Your task to perform on an android device: turn smart compose on in the gmail app Image 0: 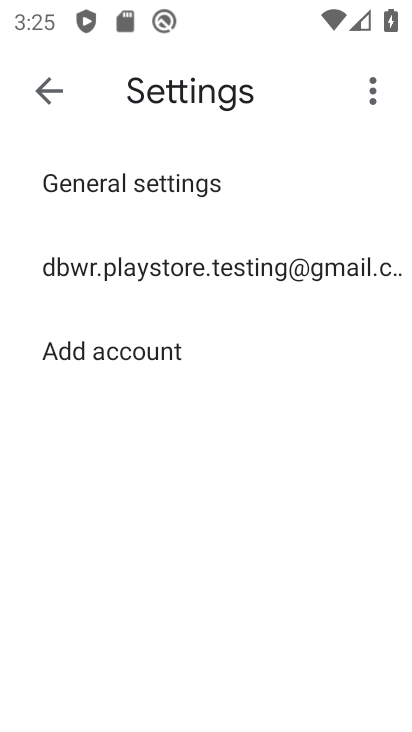
Step 0: press home button
Your task to perform on an android device: turn smart compose on in the gmail app Image 1: 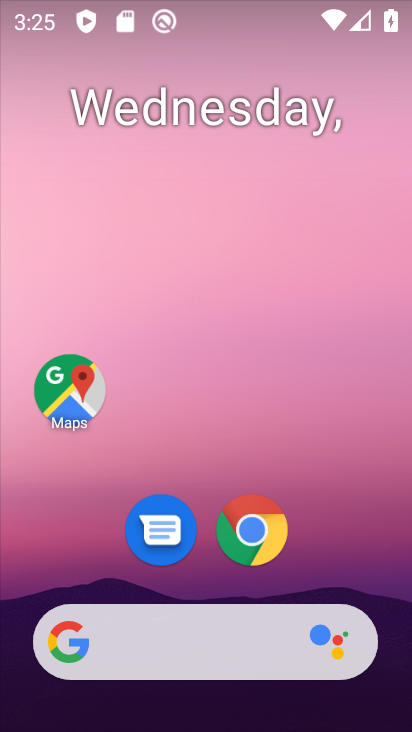
Step 1: drag from (313, 459) to (314, 131)
Your task to perform on an android device: turn smart compose on in the gmail app Image 2: 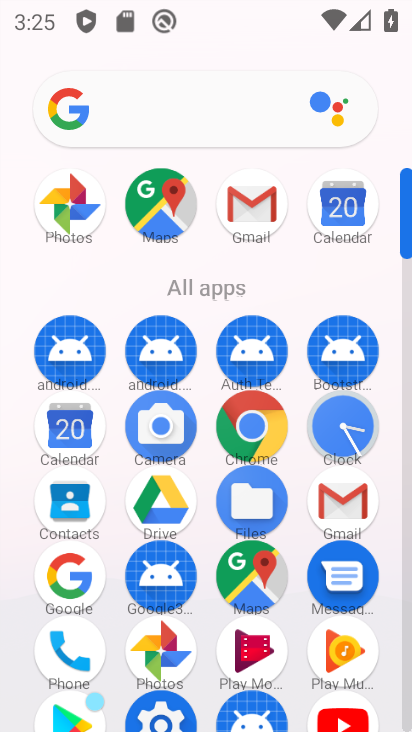
Step 2: click (249, 192)
Your task to perform on an android device: turn smart compose on in the gmail app Image 3: 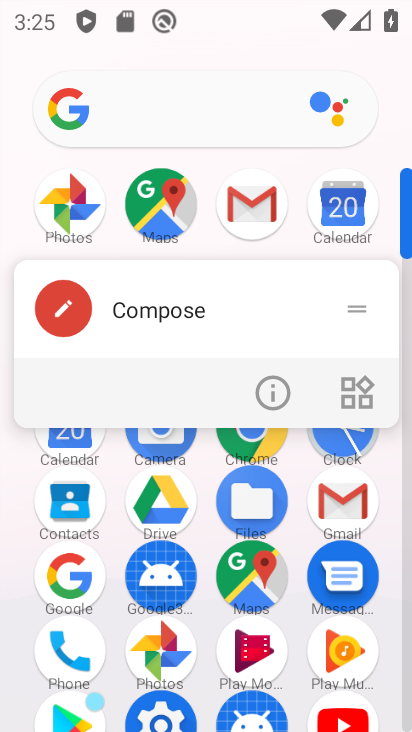
Step 3: click (352, 500)
Your task to perform on an android device: turn smart compose on in the gmail app Image 4: 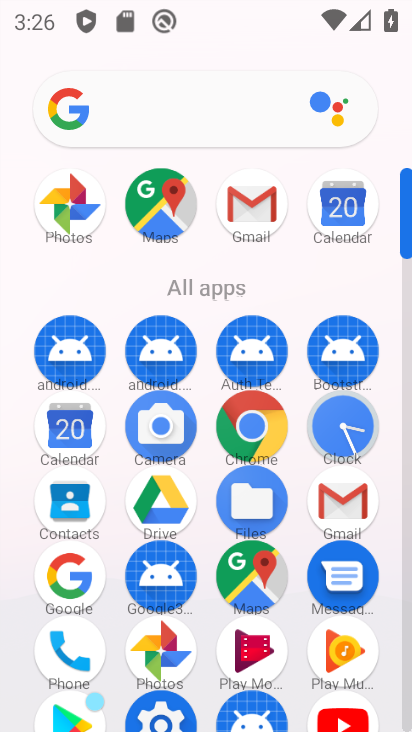
Step 4: click (339, 498)
Your task to perform on an android device: turn smart compose on in the gmail app Image 5: 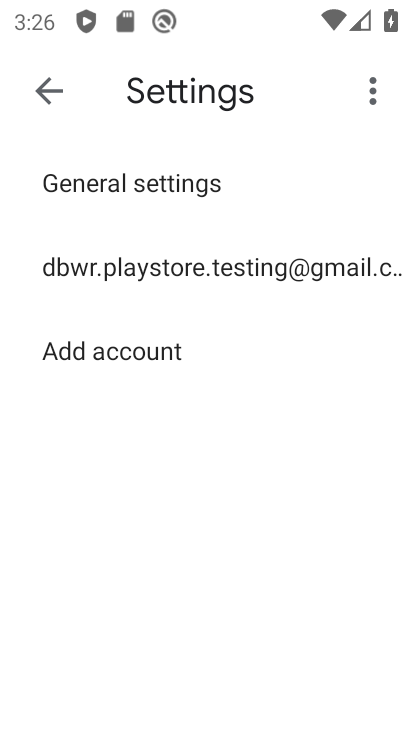
Step 5: click (224, 269)
Your task to perform on an android device: turn smart compose on in the gmail app Image 6: 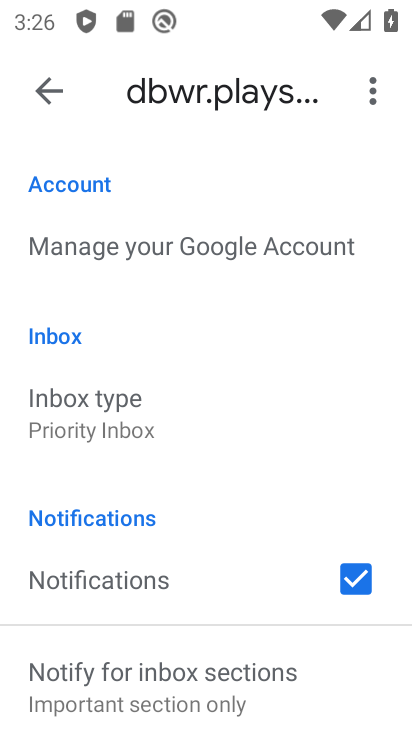
Step 6: task complete